Your task to perform on an android device: visit the assistant section in the google photos Image 0: 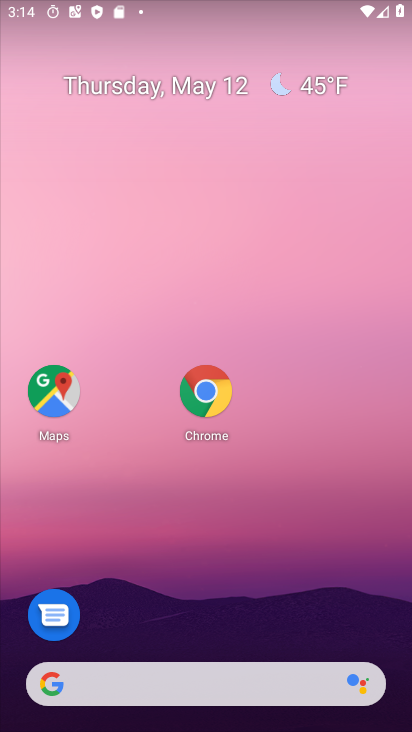
Step 0: drag from (178, 575) to (170, 127)
Your task to perform on an android device: visit the assistant section in the google photos Image 1: 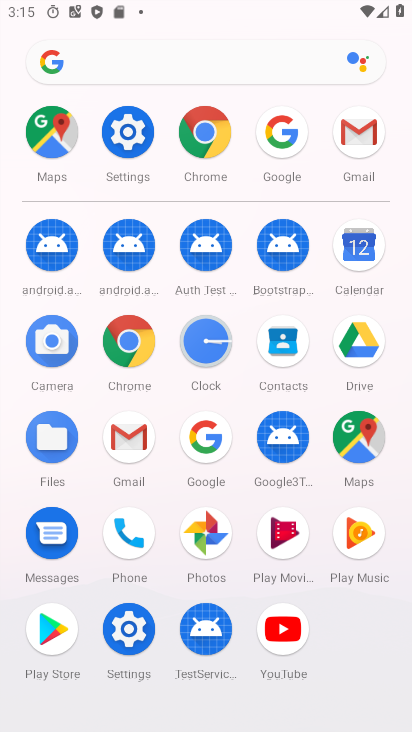
Step 1: click (207, 530)
Your task to perform on an android device: visit the assistant section in the google photos Image 2: 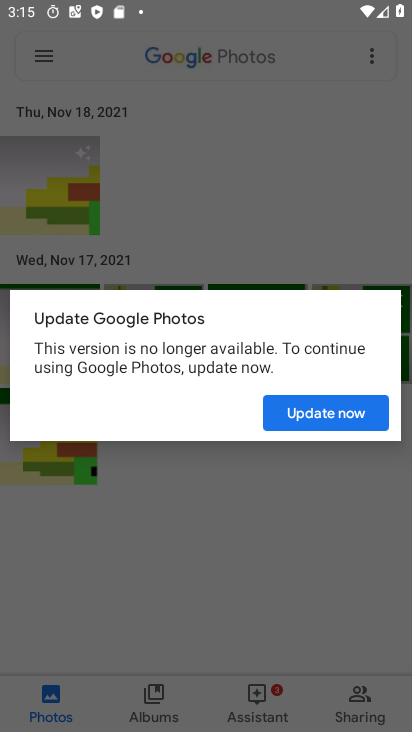
Step 2: click (333, 413)
Your task to perform on an android device: visit the assistant section in the google photos Image 3: 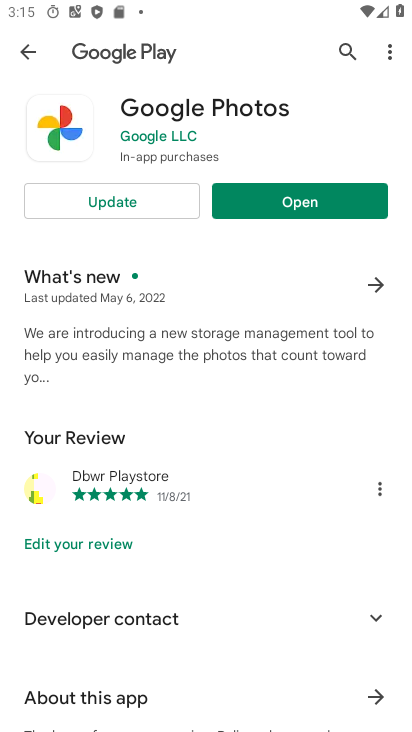
Step 3: click (326, 195)
Your task to perform on an android device: visit the assistant section in the google photos Image 4: 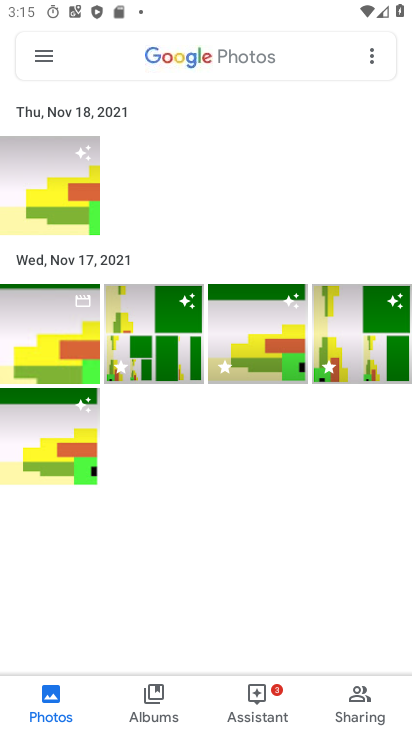
Step 4: click (259, 714)
Your task to perform on an android device: visit the assistant section in the google photos Image 5: 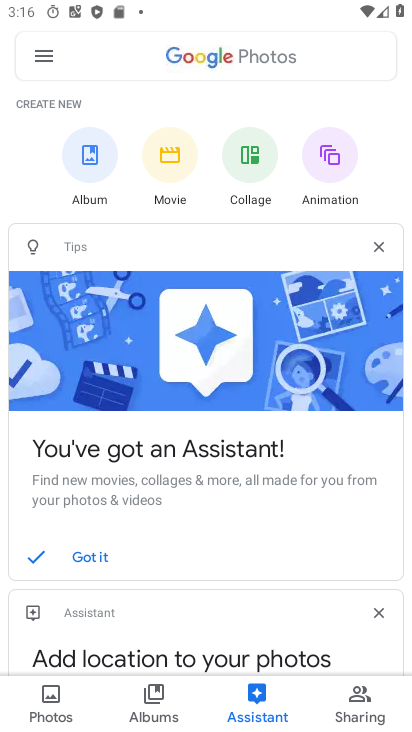
Step 5: task complete